Your task to perform on an android device: delete a single message in the gmail app Image 0: 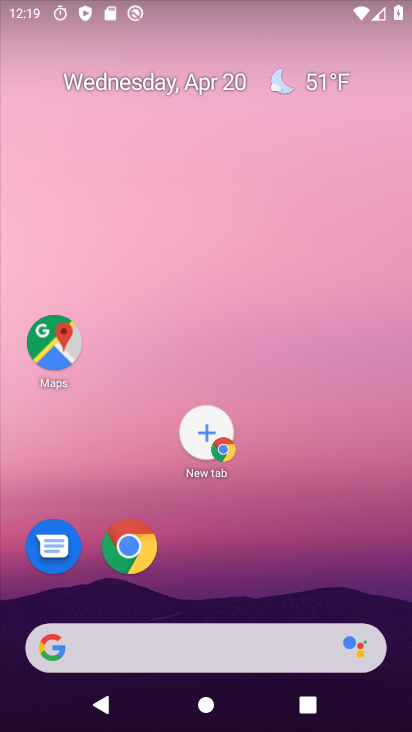
Step 0: drag from (203, 606) to (231, 44)
Your task to perform on an android device: delete a single message in the gmail app Image 1: 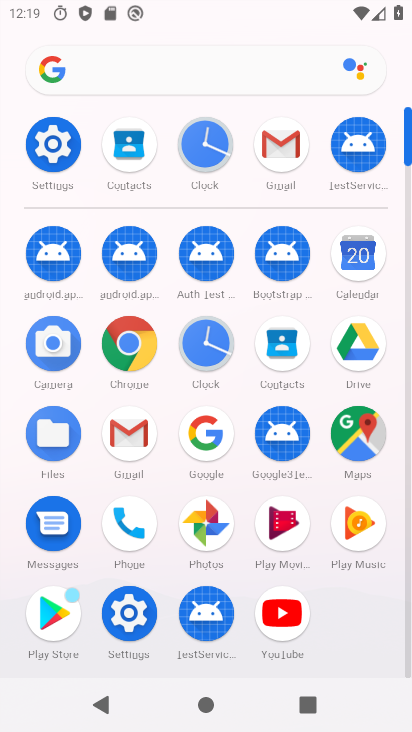
Step 1: click (133, 444)
Your task to perform on an android device: delete a single message in the gmail app Image 2: 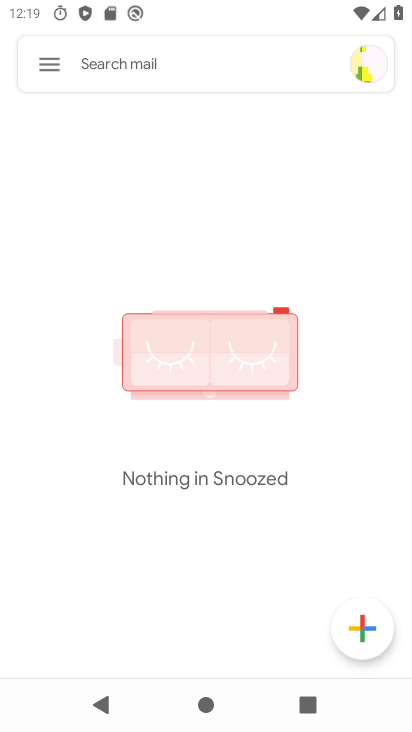
Step 2: click (55, 50)
Your task to perform on an android device: delete a single message in the gmail app Image 3: 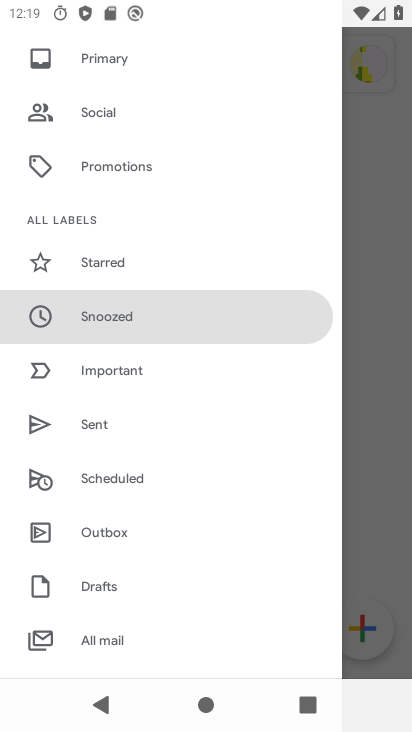
Step 3: drag from (115, 106) to (102, 511)
Your task to perform on an android device: delete a single message in the gmail app Image 4: 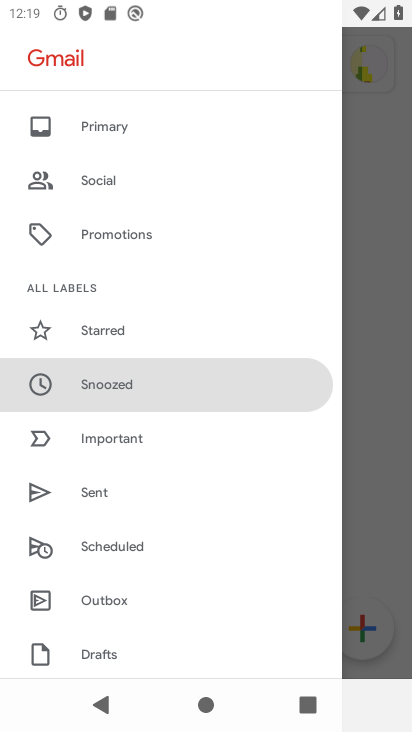
Step 4: drag from (94, 562) to (119, 122)
Your task to perform on an android device: delete a single message in the gmail app Image 5: 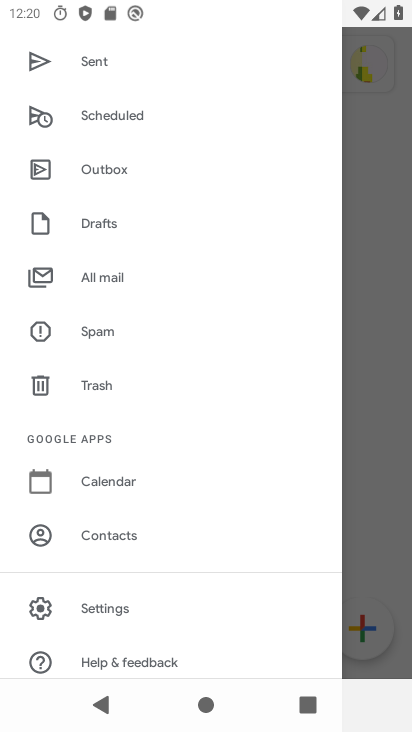
Step 5: click (114, 264)
Your task to perform on an android device: delete a single message in the gmail app Image 6: 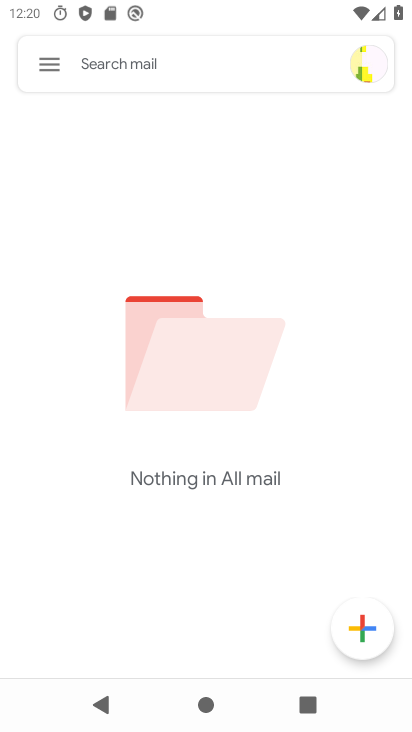
Step 6: task complete